Your task to perform on an android device: make emails show in primary in the gmail app Image 0: 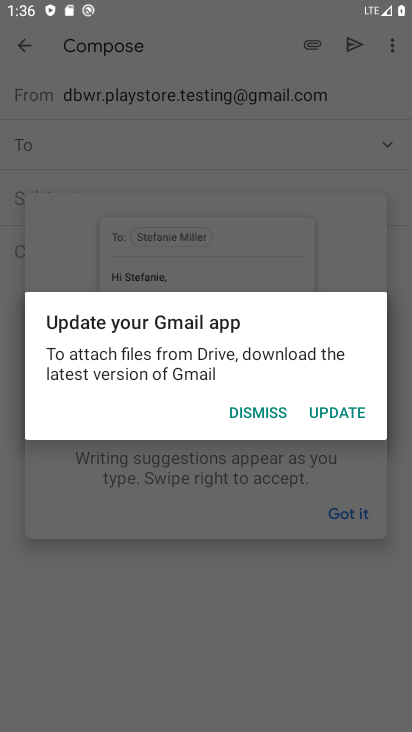
Step 0: press home button
Your task to perform on an android device: make emails show in primary in the gmail app Image 1: 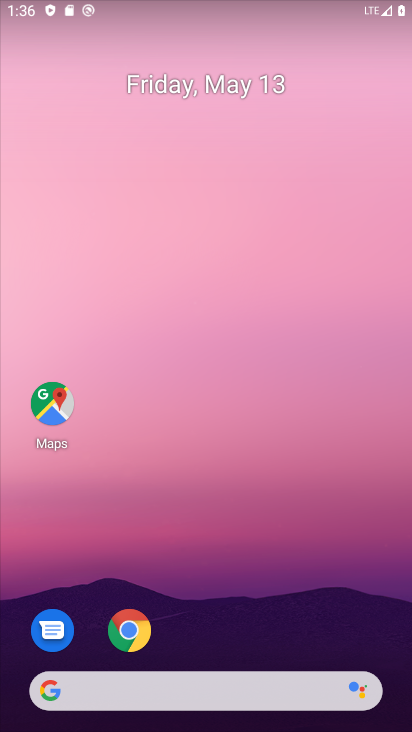
Step 1: drag from (298, 292) to (293, 1)
Your task to perform on an android device: make emails show in primary in the gmail app Image 2: 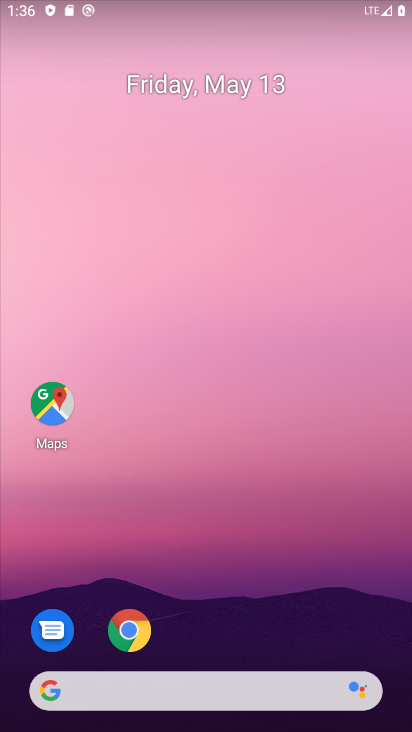
Step 2: drag from (257, 548) to (304, 10)
Your task to perform on an android device: make emails show in primary in the gmail app Image 3: 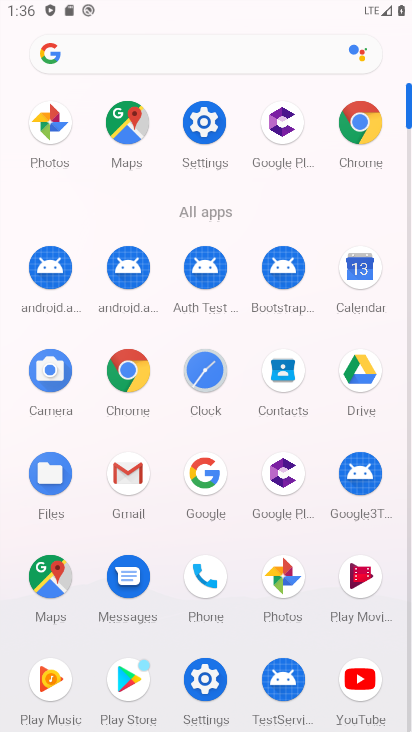
Step 3: click (134, 479)
Your task to perform on an android device: make emails show in primary in the gmail app Image 4: 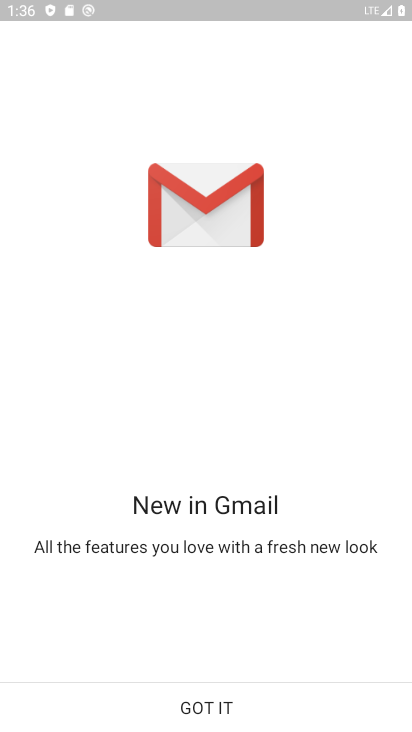
Step 4: click (301, 725)
Your task to perform on an android device: make emails show in primary in the gmail app Image 5: 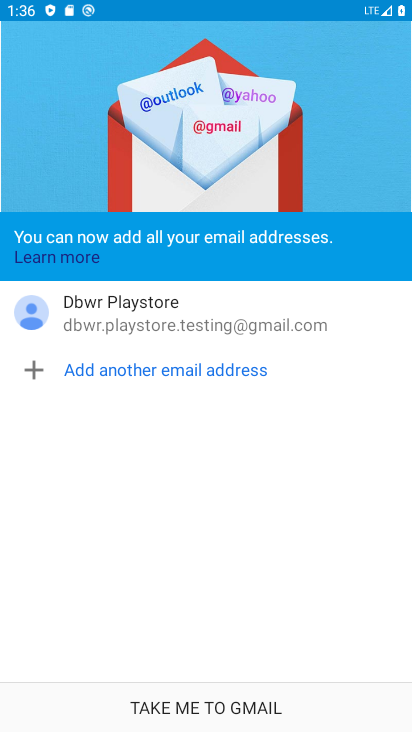
Step 5: click (244, 713)
Your task to perform on an android device: make emails show in primary in the gmail app Image 6: 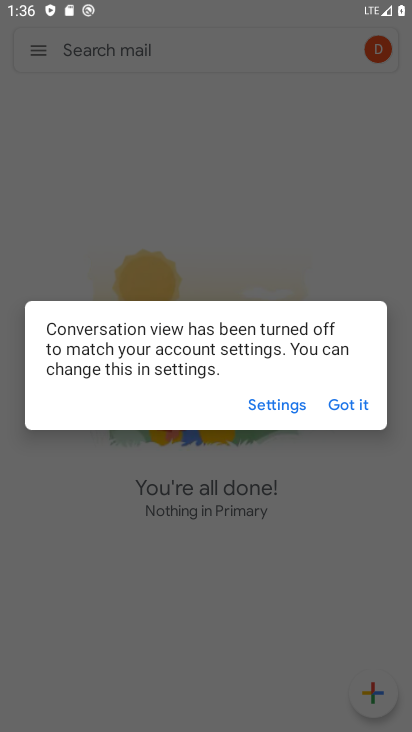
Step 6: click (345, 399)
Your task to perform on an android device: make emails show in primary in the gmail app Image 7: 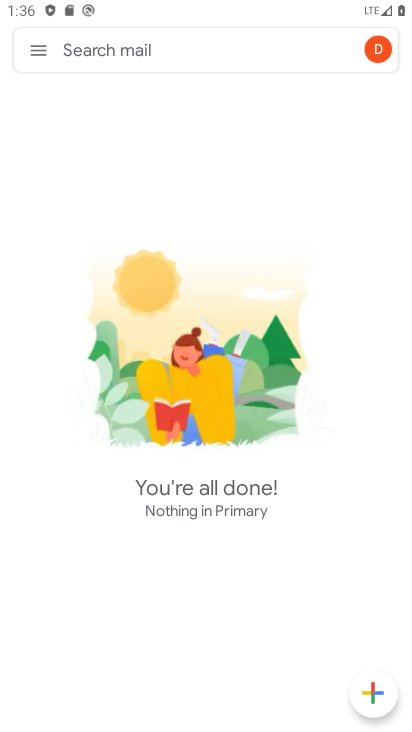
Step 7: click (32, 42)
Your task to perform on an android device: make emails show in primary in the gmail app Image 8: 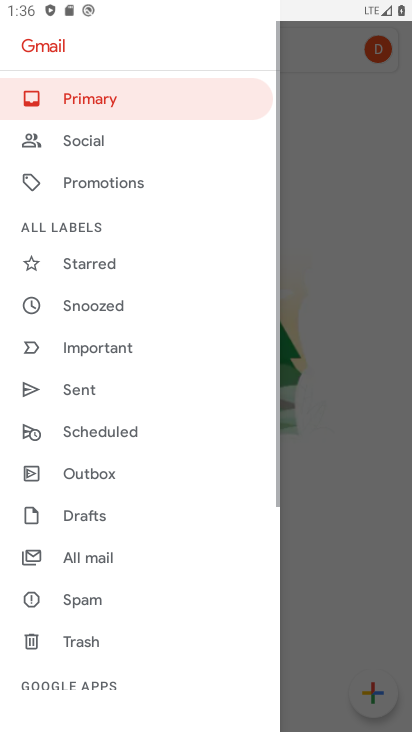
Step 8: drag from (181, 647) to (223, 230)
Your task to perform on an android device: make emails show in primary in the gmail app Image 9: 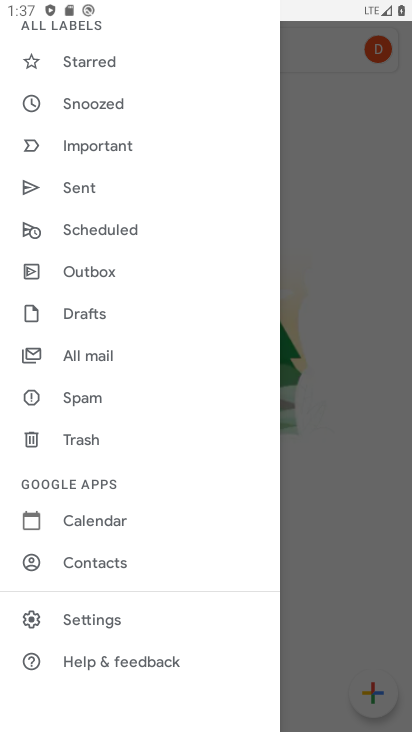
Step 9: click (118, 619)
Your task to perform on an android device: make emails show in primary in the gmail app Image 10: 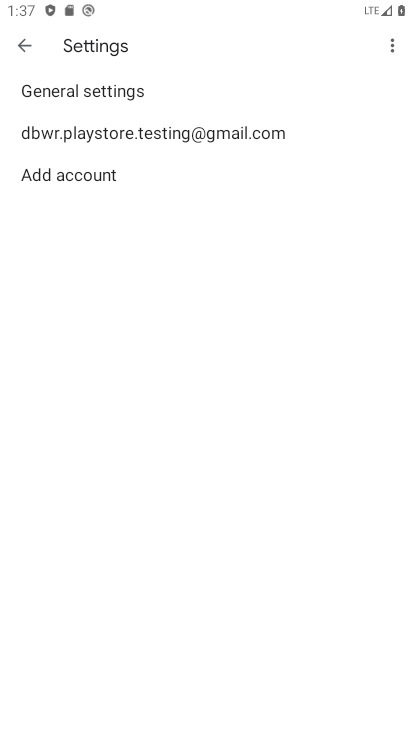
Step 10: click (161, 135)
Your task to perform on an android device: make emails show in primary in the gmail app Image 11: 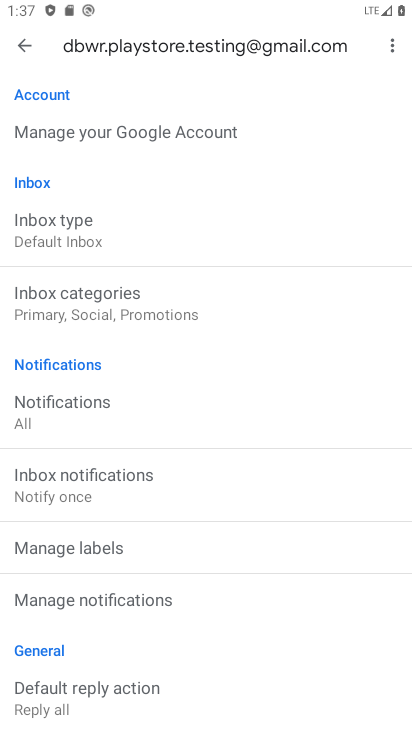
Step 11: click (84, 290)
Your task to perform on an android device: make emails show in primary in the gmail app Image 12: 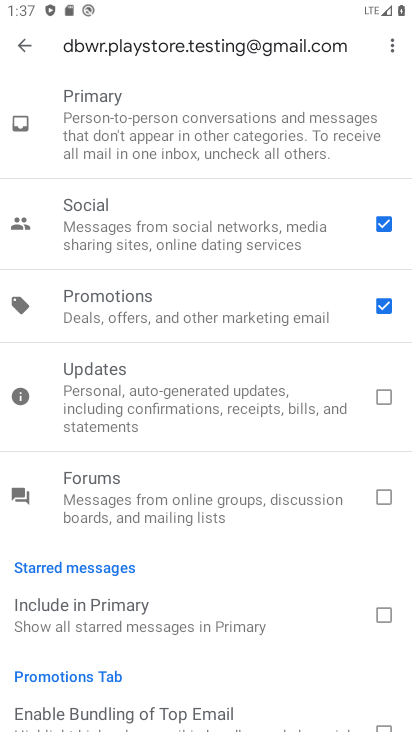
Step 12: task complete